Your task to perform on an android device: check storage Image 0: 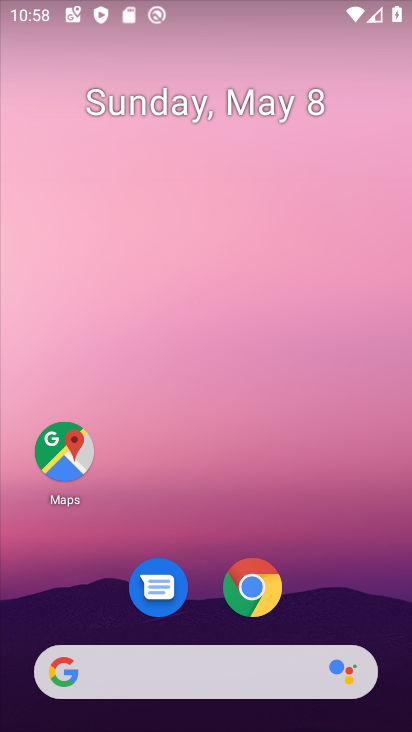
Step 0: click (146, 65)
Your task to perform on an android device: check storage Image 1: 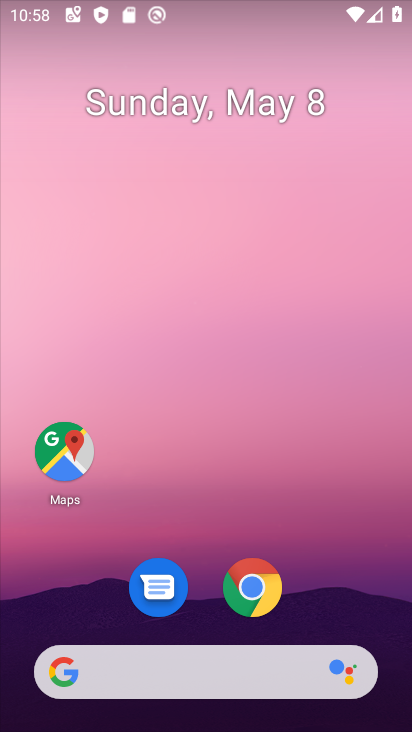
Step 1: drag from (323, 569) to (214, 95)
Your task to perform on an android device: check storage Image 2: 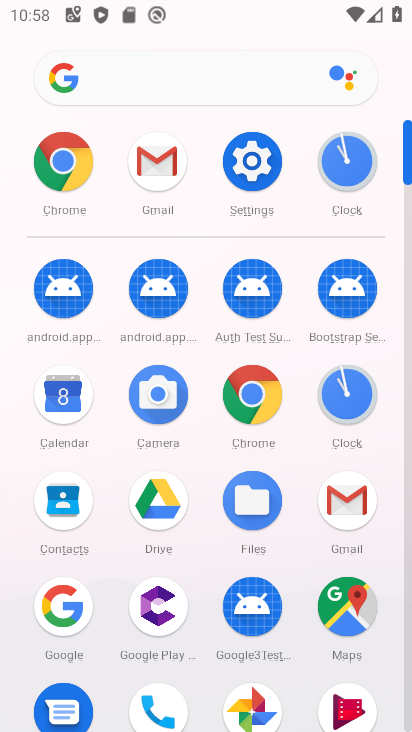
Step 2: click (263, 165)
Your task to perform on an android device: check storage Image 3: 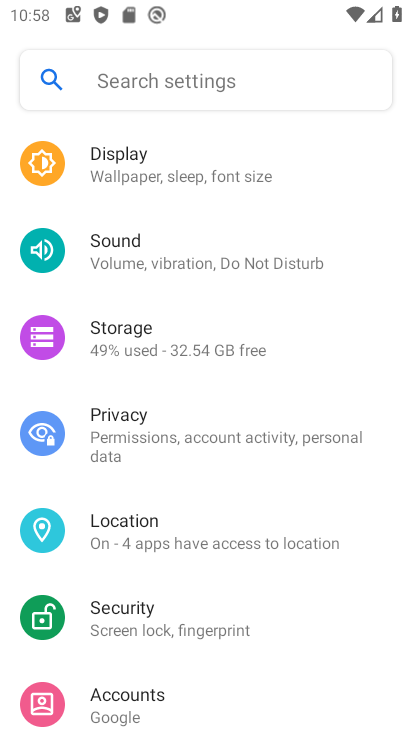
Step 3: click (147, 345)
Your task to perform on an android device: check storage Image 4: 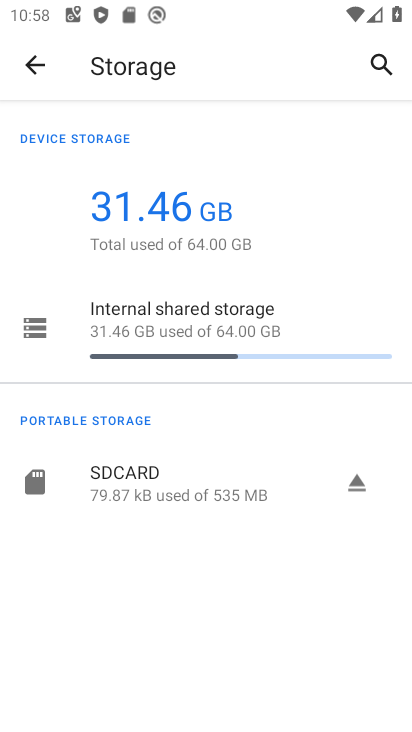
Step 4: task complete